Your task to perform on an android device: Show me productivity apps on the Play Store Image 0: 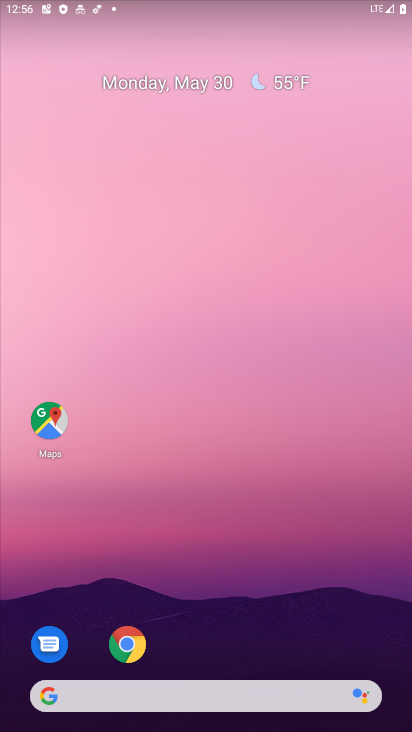
Step 0: drag from (245, 640) to (256, 246)
Your task to perform on an android device: Show me productivity apps on the Play Store Image 1: 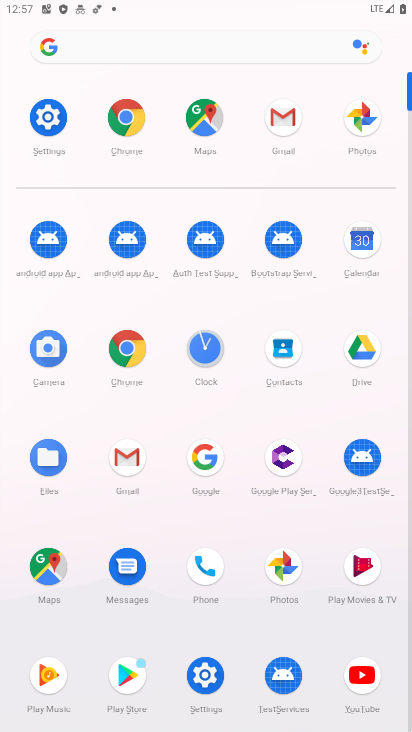
Step 1: click (137, 676)
Your task to perform on an android device: Show me productivity apps on the Play Store Image 2: 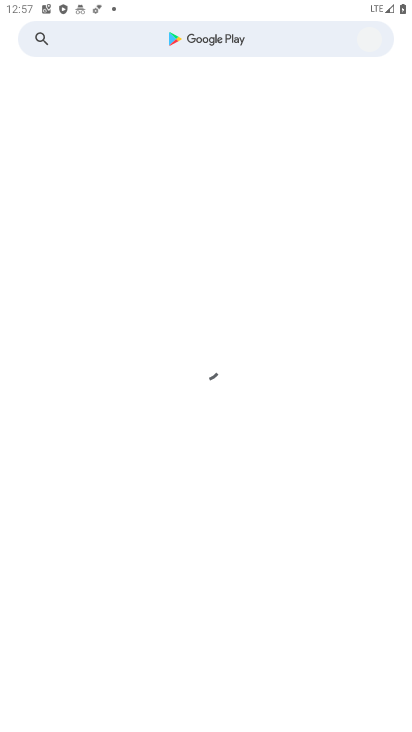
Step 2: task complete